Your task to perform on an android device: turn on wifi Image 0: 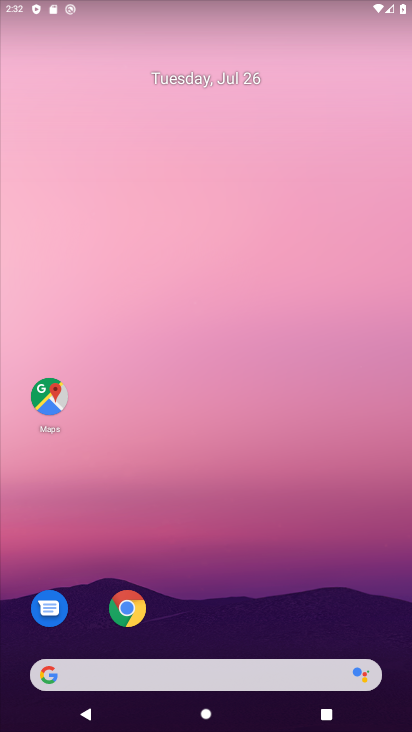
Step 0: drag from (236, 655) to (296, 16)
Your task to perform on an android device: turn on wifi Image 1: 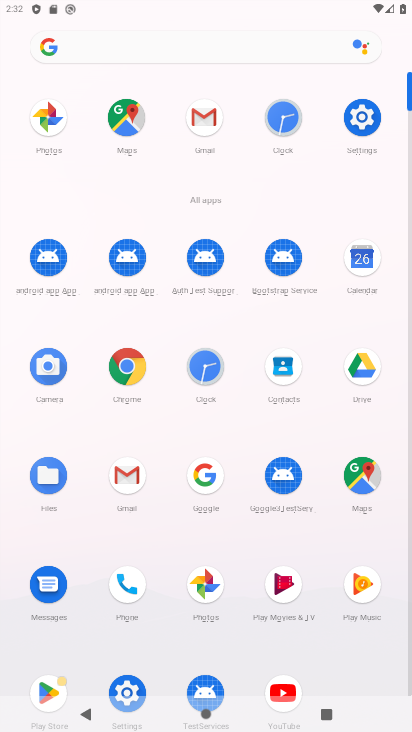
Step 1: click (368, 128)
Your task to perform on an android device: turn on wifi Image 2: 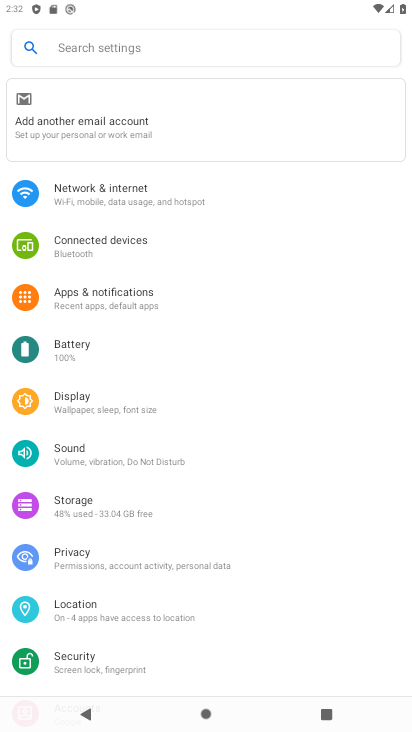
Step 2: click (138, 203)
Your task to perform on an android device: turn on wifi Image 3: 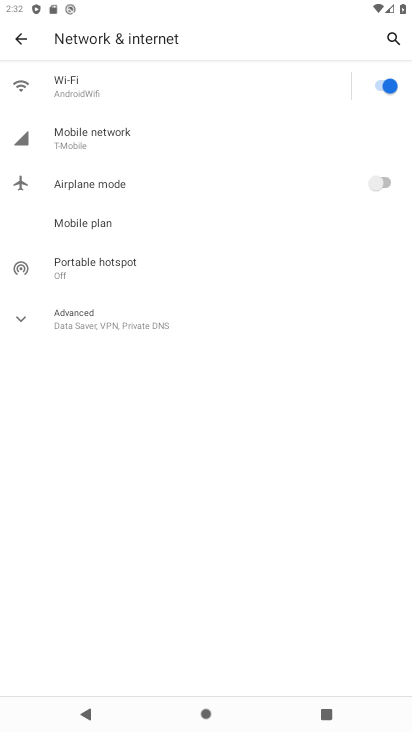
Step 3: task complete